Your task to perform on an android device: Open display settings Image 0: 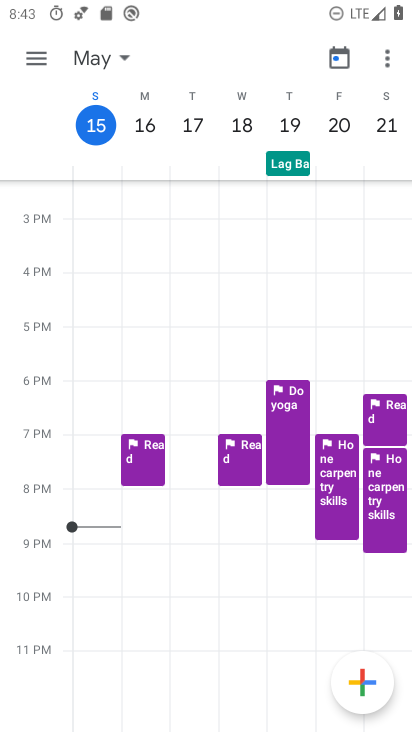
Step 0: press back button
Your task to perform on an android device: Open display settings Image 1: 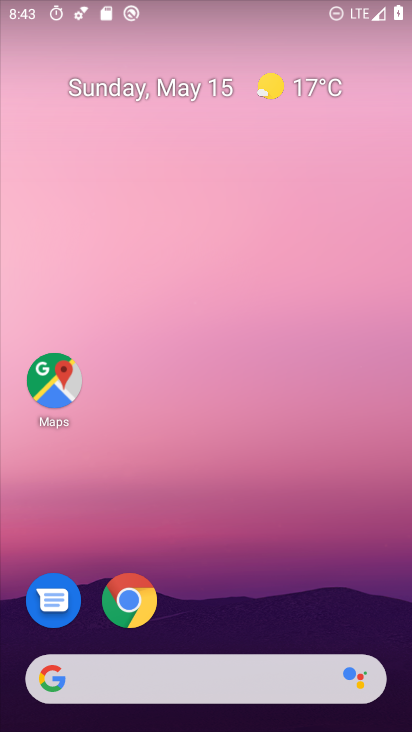
Step 1: drag from (215, 605) to (218, 59)
Your task to perform on an android device: Open display settings Image 2: 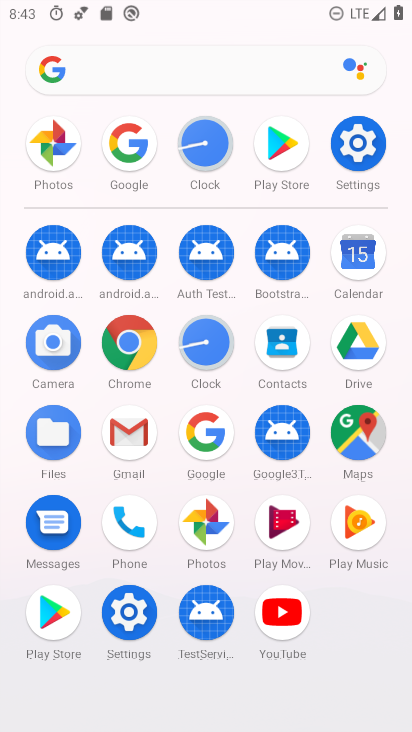
Step 2: click (359, 143)
Your task to perform on an android device: Open display settings Image 3: 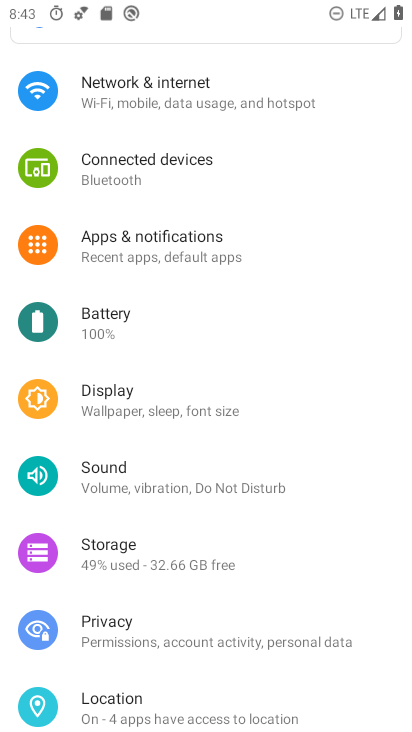
Step 3: click (117, 403)
Your task to perform on an android device: Open display settings Image 4: 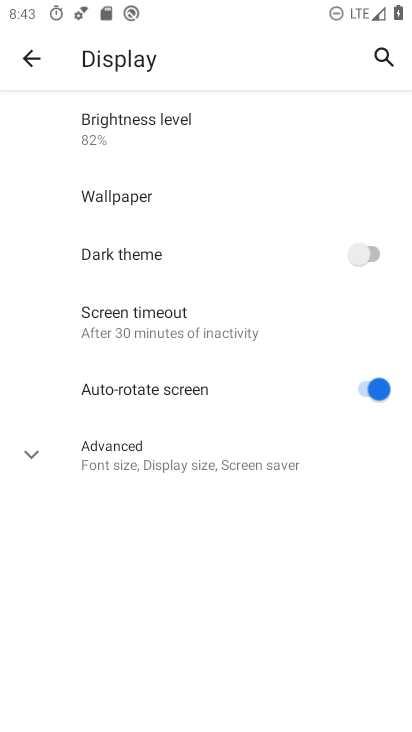
Step 4: task complete